Your task to perform on an android device: turn off picture-in-picture Image 0: 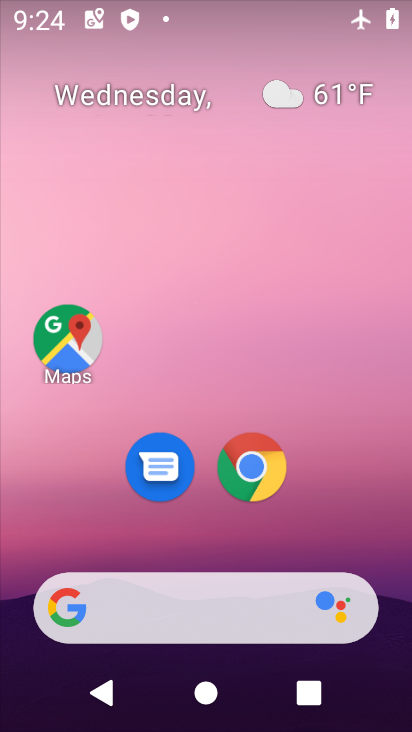
Step 0: drag from (222, 720) to (208, 113)
Your task to perform on an android device: turn off picture-in-picture Image 1: 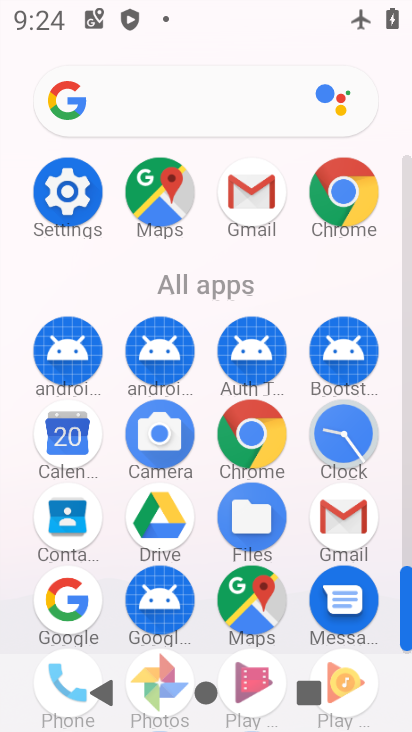
Step 1: click (74, 183)
Your task to perform on an android device: turn off picture-in-picture Image 2: 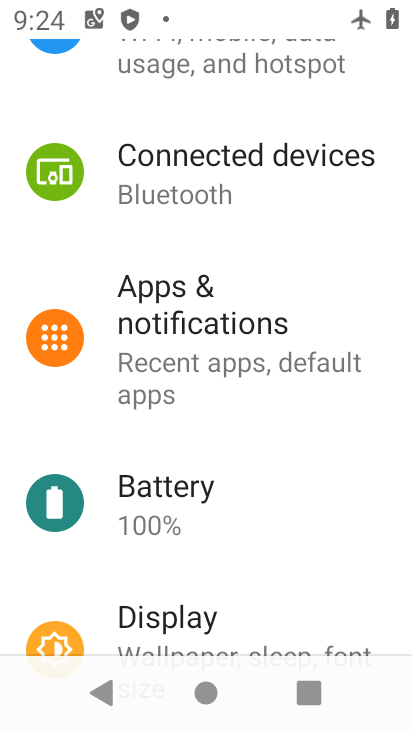
Step 2: drag from (280, 204) to (248, 536)
Your task to perform on an android device: turn off picture-in-picture Image 3: 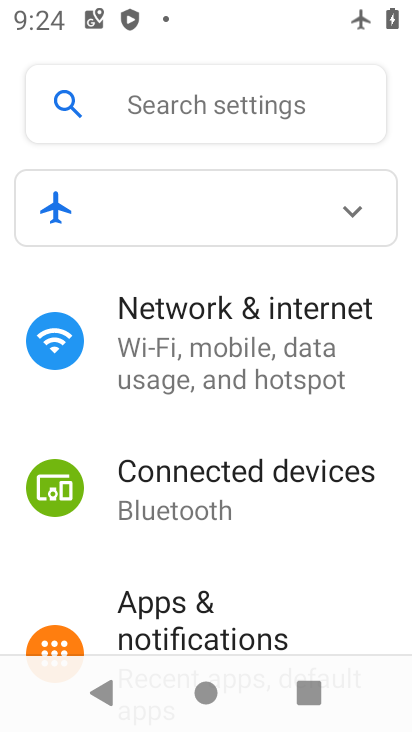
Step 3: click (157, 608)
Your task to perform on an android device: turn off picture-in-picture Image 4: 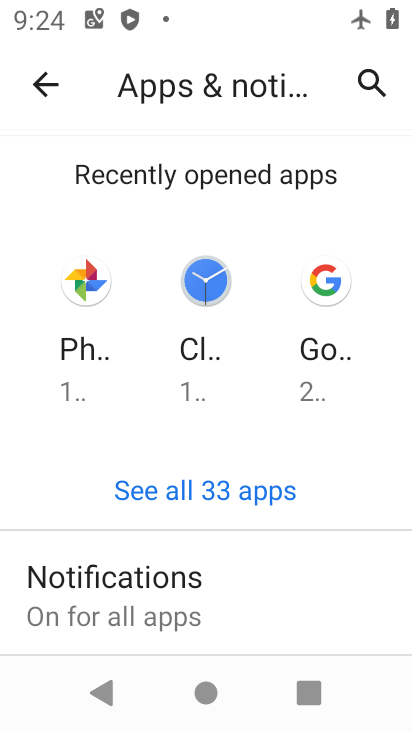
Step 4: drag from (241, 622) to (250, 166)
Your task to perform on an android device: turn off picture-in-picture Image 5: 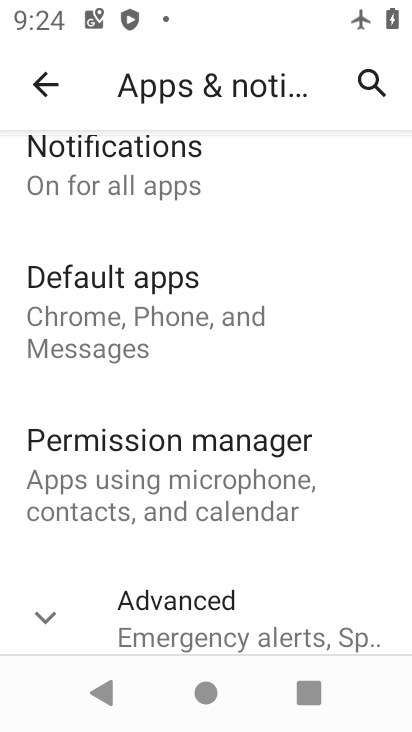
Step 5: click (170, 613)
Your task to perform on an android device: turn off picture-in-picture Image 6: 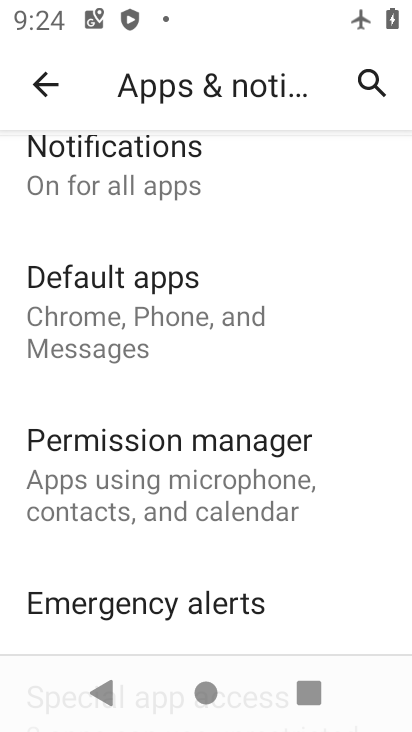
Step 6: drag from (298, 594) to (302, 265)
Your task to perform on an android device: turn off picture-in-picture Image 7: 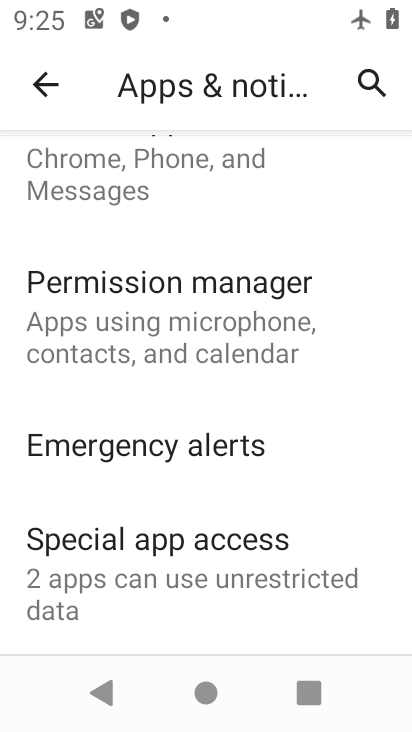
Step 7: click (147, 563)
Your task to perform on an android device: turn off picture-in-picture Image 8: 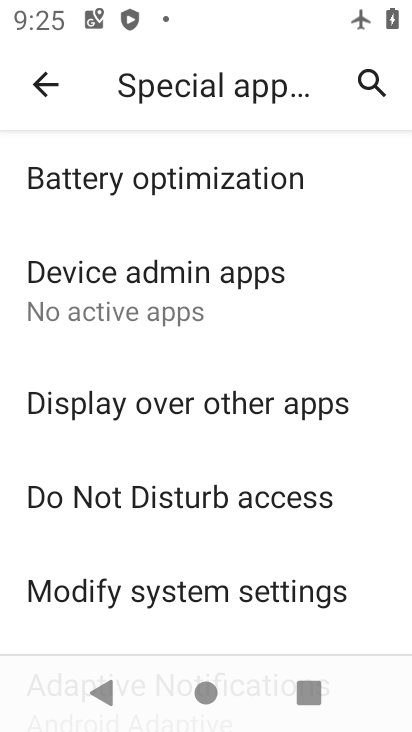
Step 8: drag from (203, 538) to (210, 226)
Your task to perform on an android device: turn off picture-in-picture Image 9: 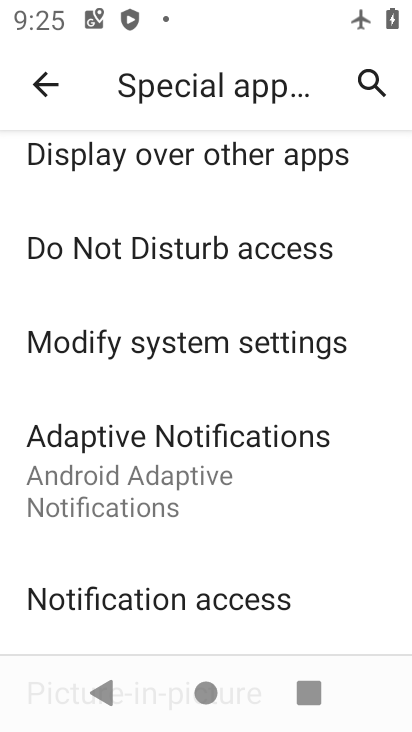
Step 9: drag from (192, 557) to (187, 250)
Your task to perform on an android device: turn off picture-in-picture Image 10: 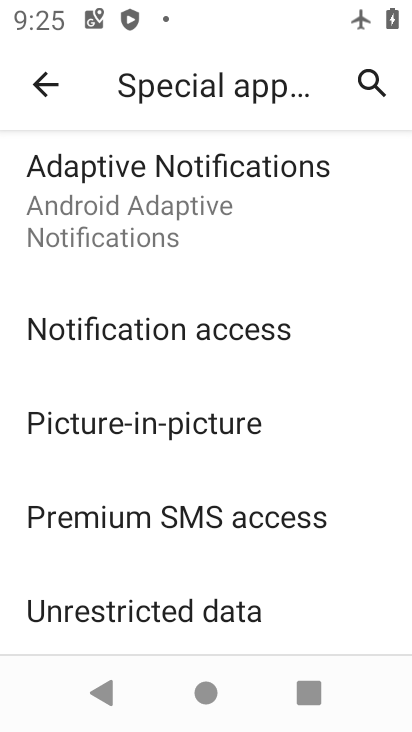
Step 10: click (135, 423)
Your task to perform on an android device: turn off picture-in-picture Image 11: 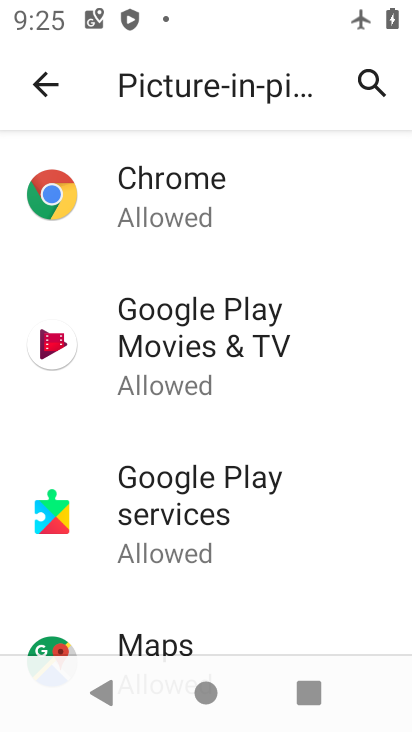
Step 11: drag from (232, 607) to (239, 256)
Your task to perform on an android device: turn off picture-in-picture Image 12: 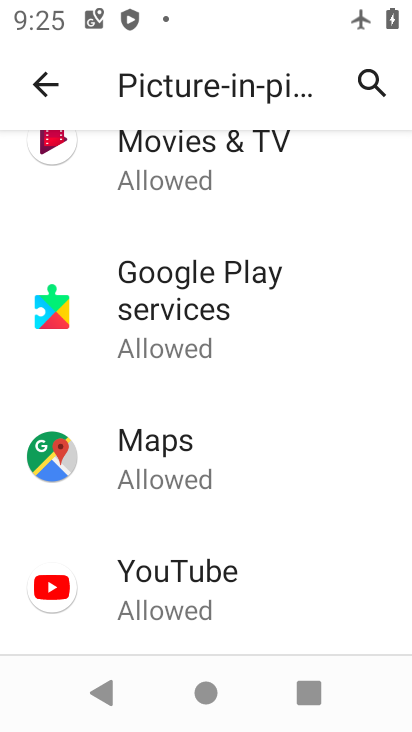
Step 12: click (187, 562)
Your task to perform on an android device: turn off picture-in-picture Image 13: 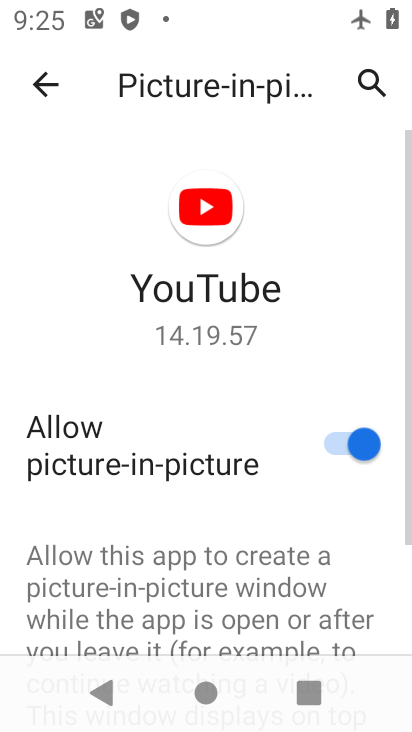
Step 13: click (336, 444)
Your task to perform on an android device: turn off picture-in-picture Image 14: 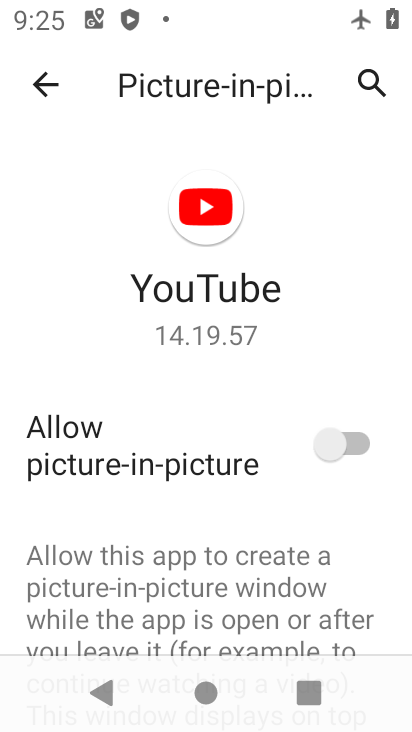
Step 14: task complete